Your task to perform on an android device: read, delete, or share a saved page in the chrome app Image 0: 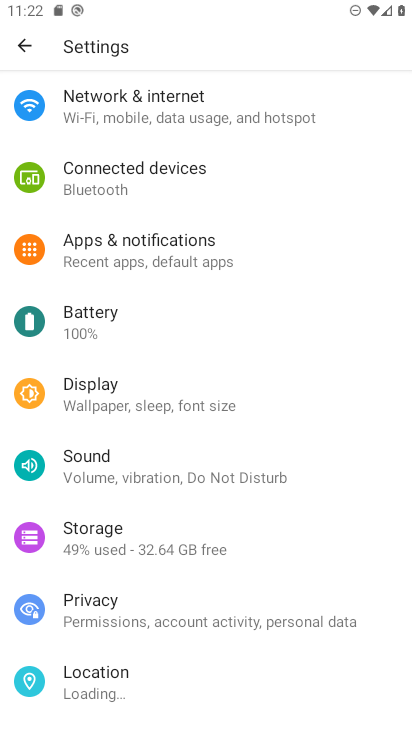
Step 0: press home button
Your task to perform on an android device: read, delete, or share a saved page in the chrome app Image 1: 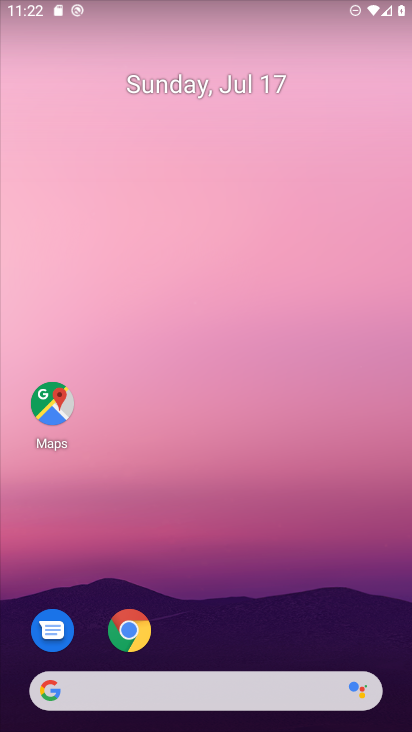
Step 1: click (131, 646)
Your task to perform on an android device: read, delete, or share a saved page in the chrome app Image 2: 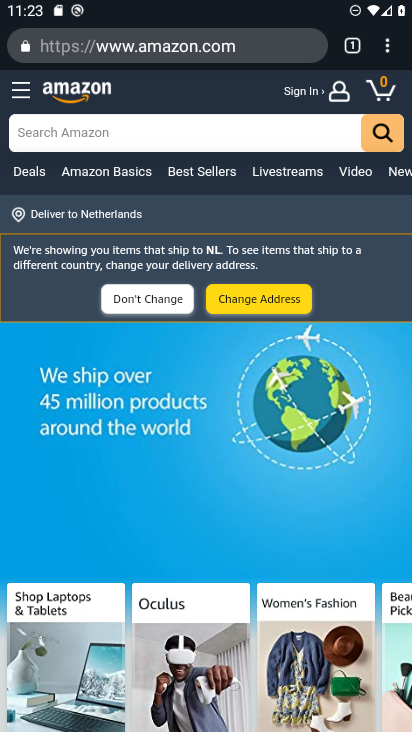
Step 2: click (392, 48)
Your task to perform on an android device: read, delete, or share a saved page in the chrome app Image 3: 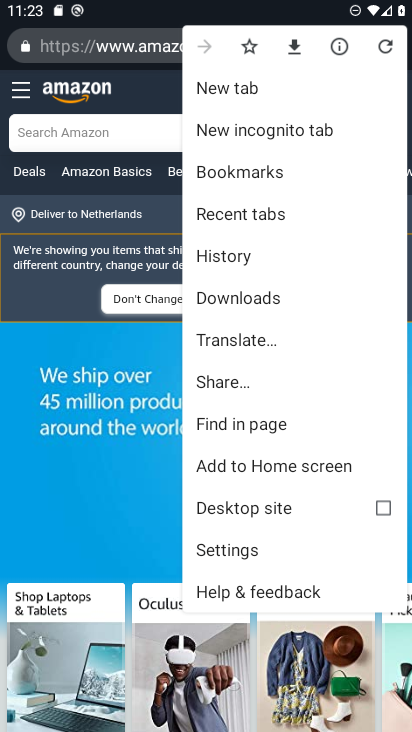
Step 3: click (283, 547)
Your task to perform on an android device: read, delete, or share a saved page in the chrome app Image 4: 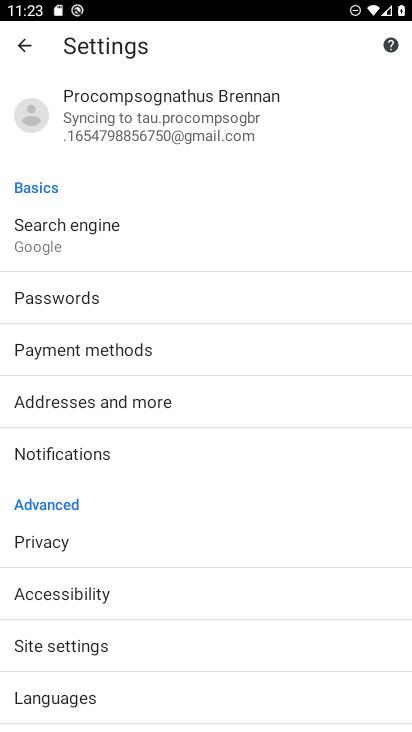
Step 4: task complete